Your task to perform on an android device: Open the phone app and click the voicemail tab. Image 0: 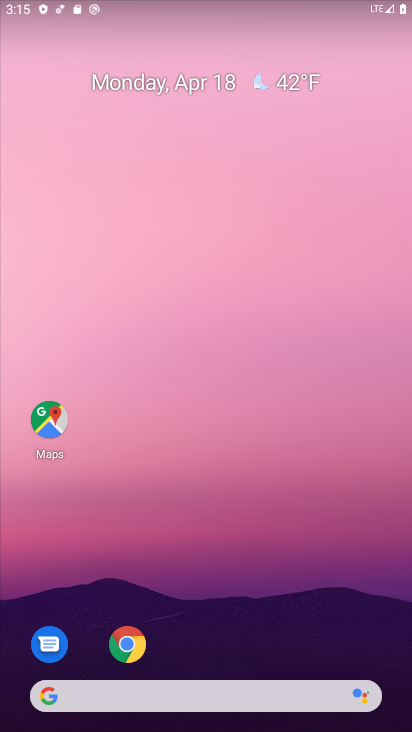
Step 0: drag from (216, 654) to (256, 151)
Your task to perform on an android device: Open the phone app and click the voicemail tab. Image 1: 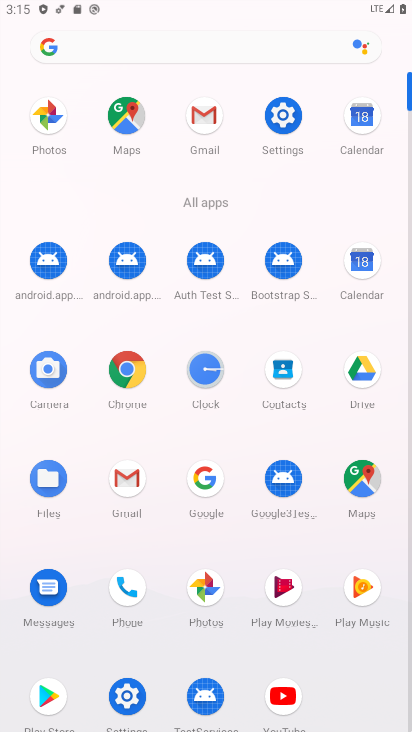
Step 1: click (124, 590)
Your task to perform on an android device: Open the phone app and click the voicemail tab. Image 2: 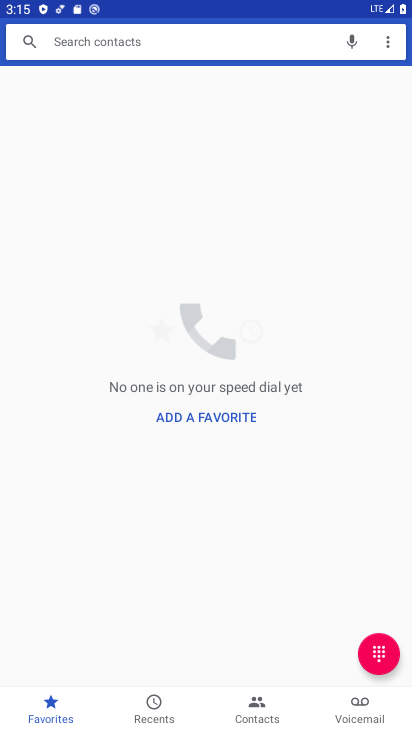
Step 2: click (358, 697)
Your task to perform on an android device: Open the phone app and click the voicemail tab. Image 3: 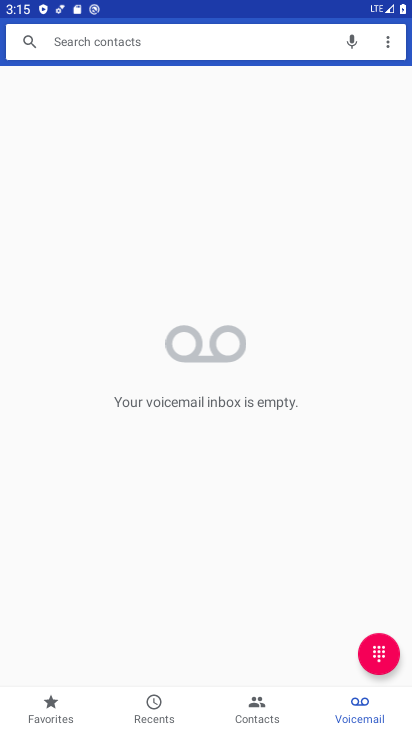
Step 3: task complete